Your task to perform on an android device: delete a single message in the gmail app Image 0: 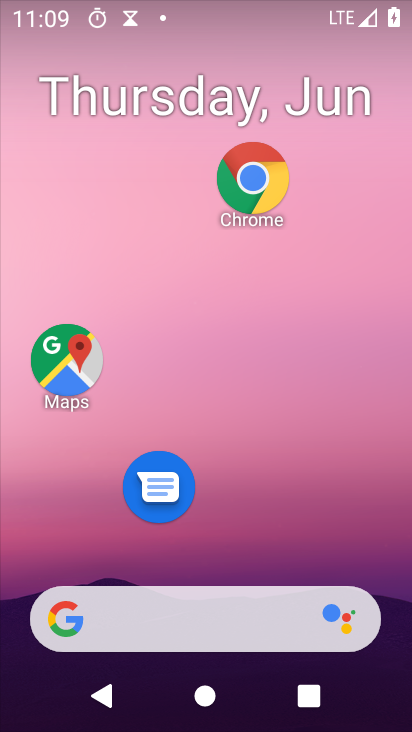
Step 0: drag from (221, 723) to (223, 160)
Your task to perform on an android device: delete a single message in the gmail app Image 1: 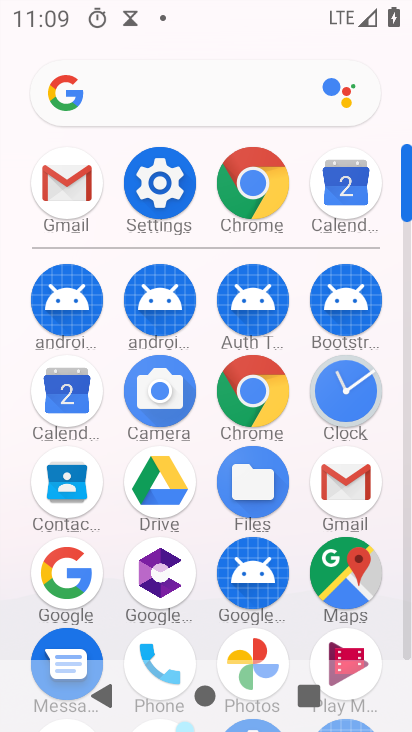
Step 1: click (352, 480)
Your task to perform on an android device: delete a single message in the gmail app Image 2: 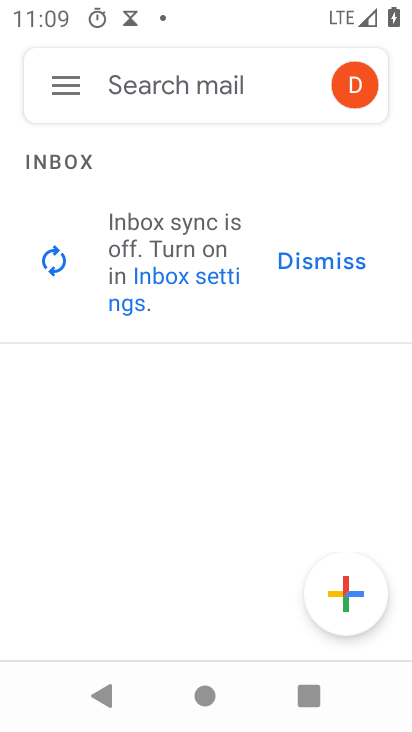
Step 2: task complete